Your task to perform on an android device: Find coffee shops on Maps Image 0: 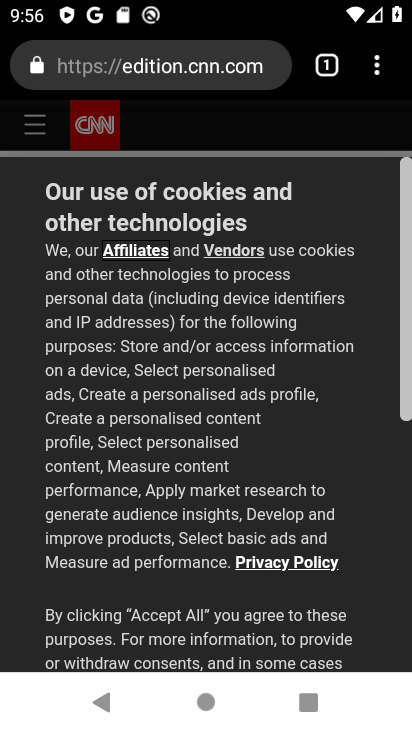
Step 0: press home button
Your task to perform on an android device: Find coffee shops on Maps Image 1: 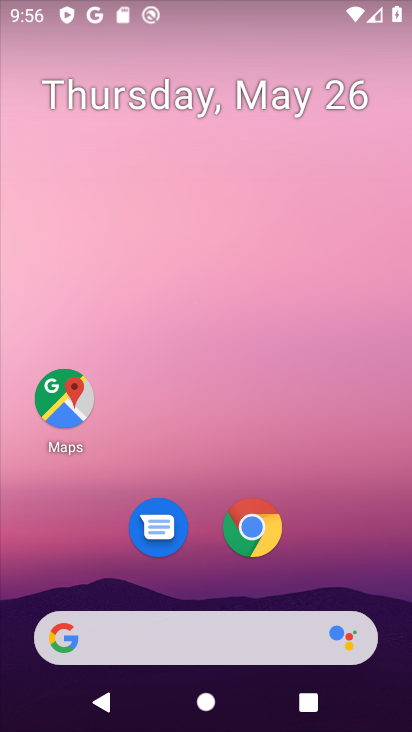
Step 1: click (72, 416)
Your task to perform on an android device: Find coffee shops on Maps Image 2: 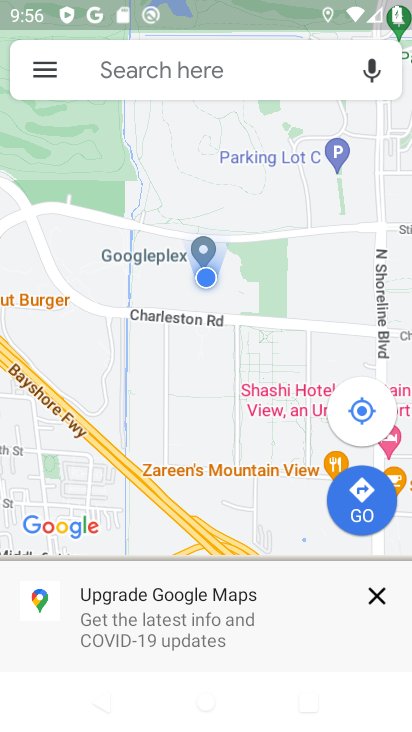
Step 2: click (172, 67)
Your task to perform on an android device: Find coffee shops on Maps Image 3: 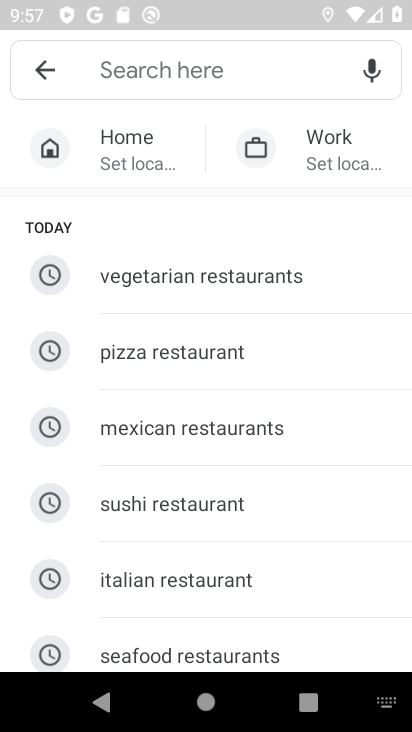
Step 3: type "coffee"
Your task to perform on an android device: Find coffee shops on Maps Image 4: 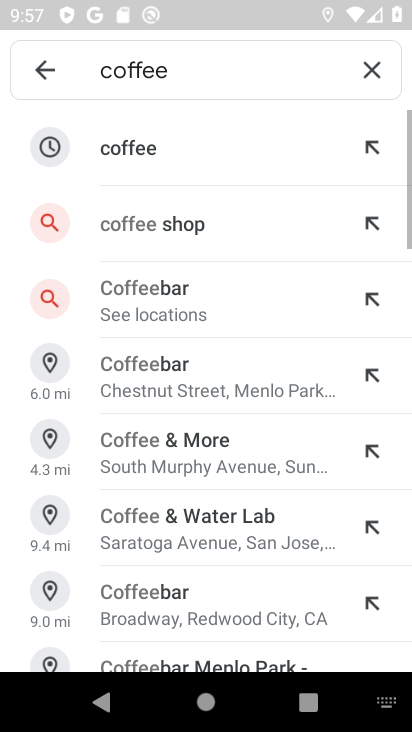
Step 4: click (183, 217)
Your task to perform on an android device: Find coffee shops on Maps Image 5: 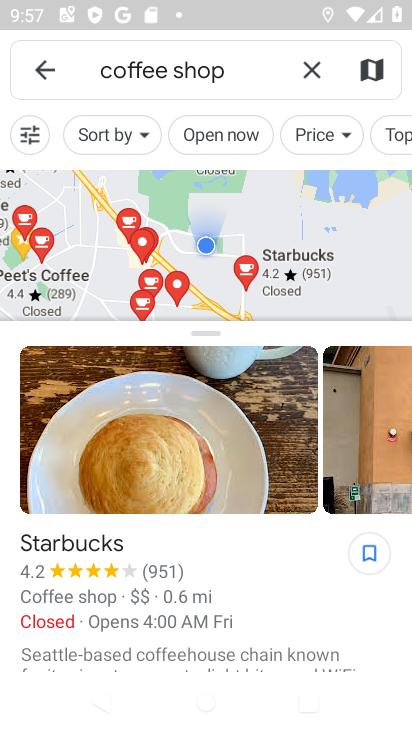
Step 5: task complete